Your task to perform on an android device: Clear the shopping cart on costco. Add "razer huntsman" to the cart on costco, then select checkout. Image 0: 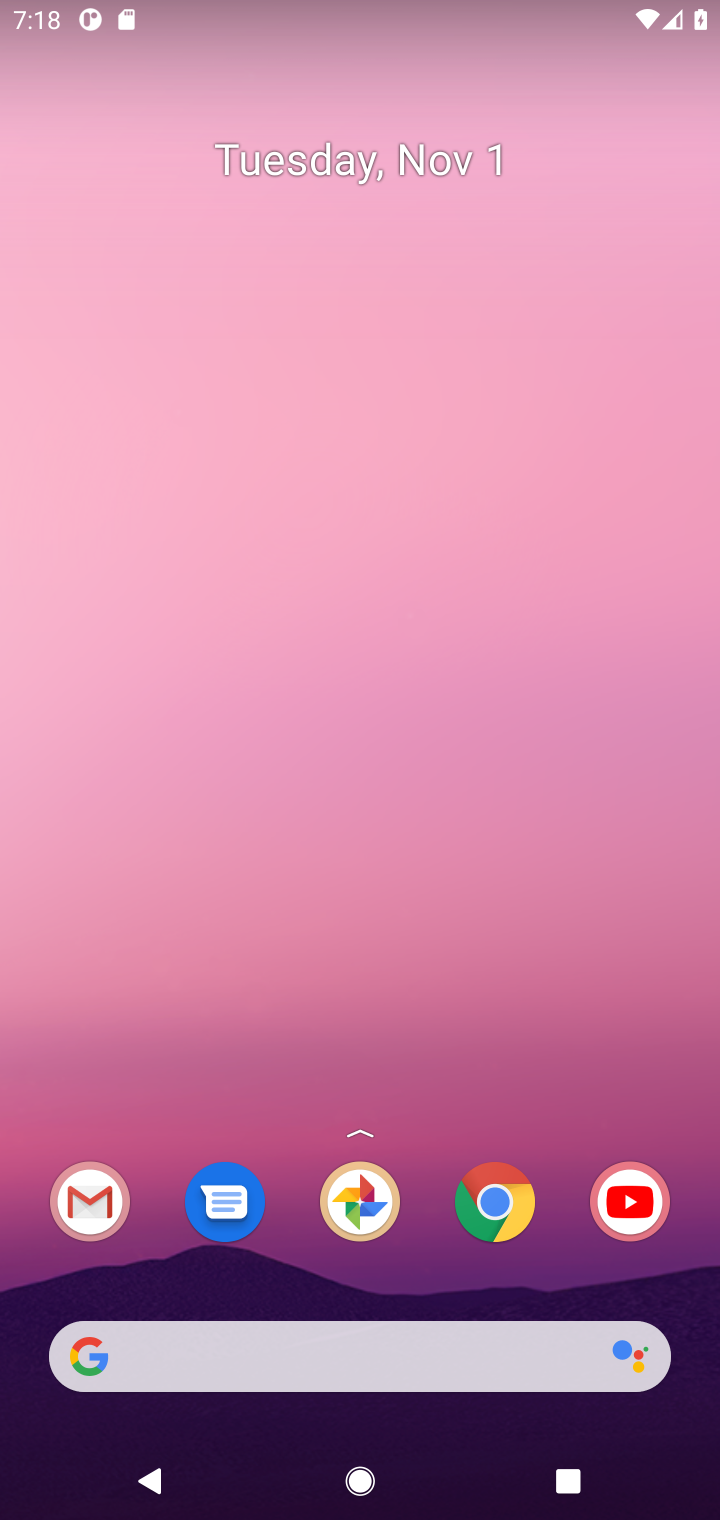
Step 0: drag from (422, 1352) to (256, 160)
Your task to perform on an android device: Clear the shopping cart on costco. Add "razer huntsman" to the cart on costco, then select checkout. Image 1: 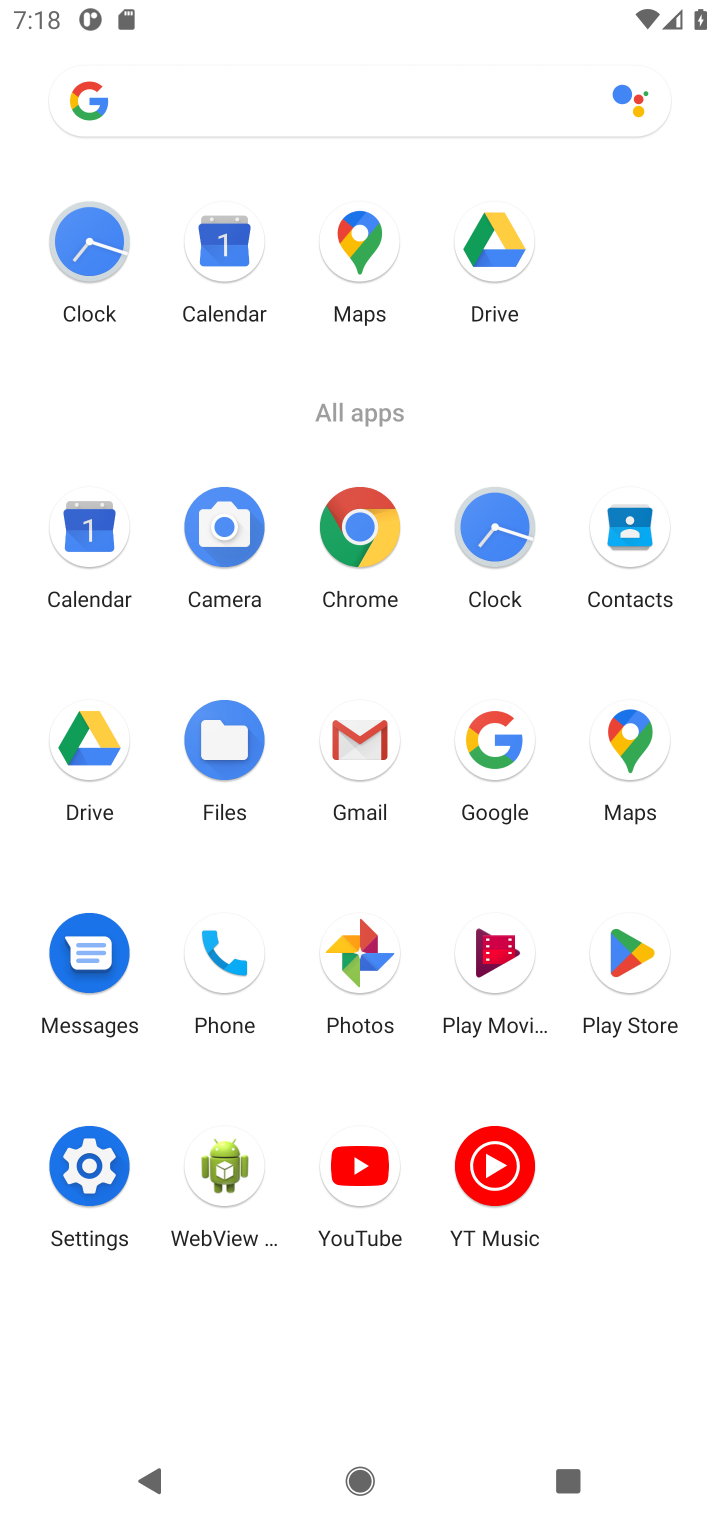
Step 1: click (367, 528)
Your task to perform on an android device: Clear the shopping cart on costco. Add "razer huntsman" to the cart on costco, then select checkout. Image 2: 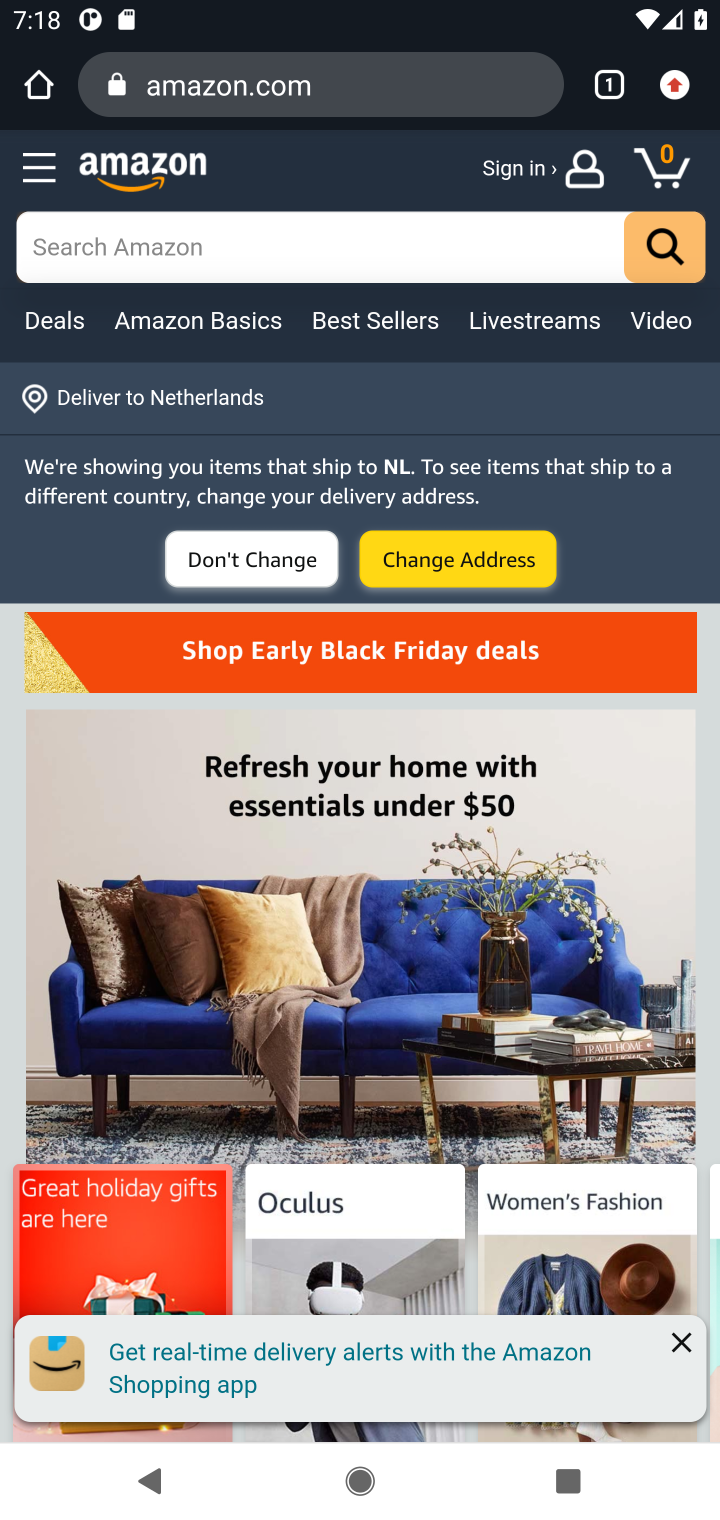
Step 2: click (309, 87)
Your task to perform on an android device: Clear the shopping cart on costco. Add "razer huntsman" to the cart on costco, then select checkout. Image 3: 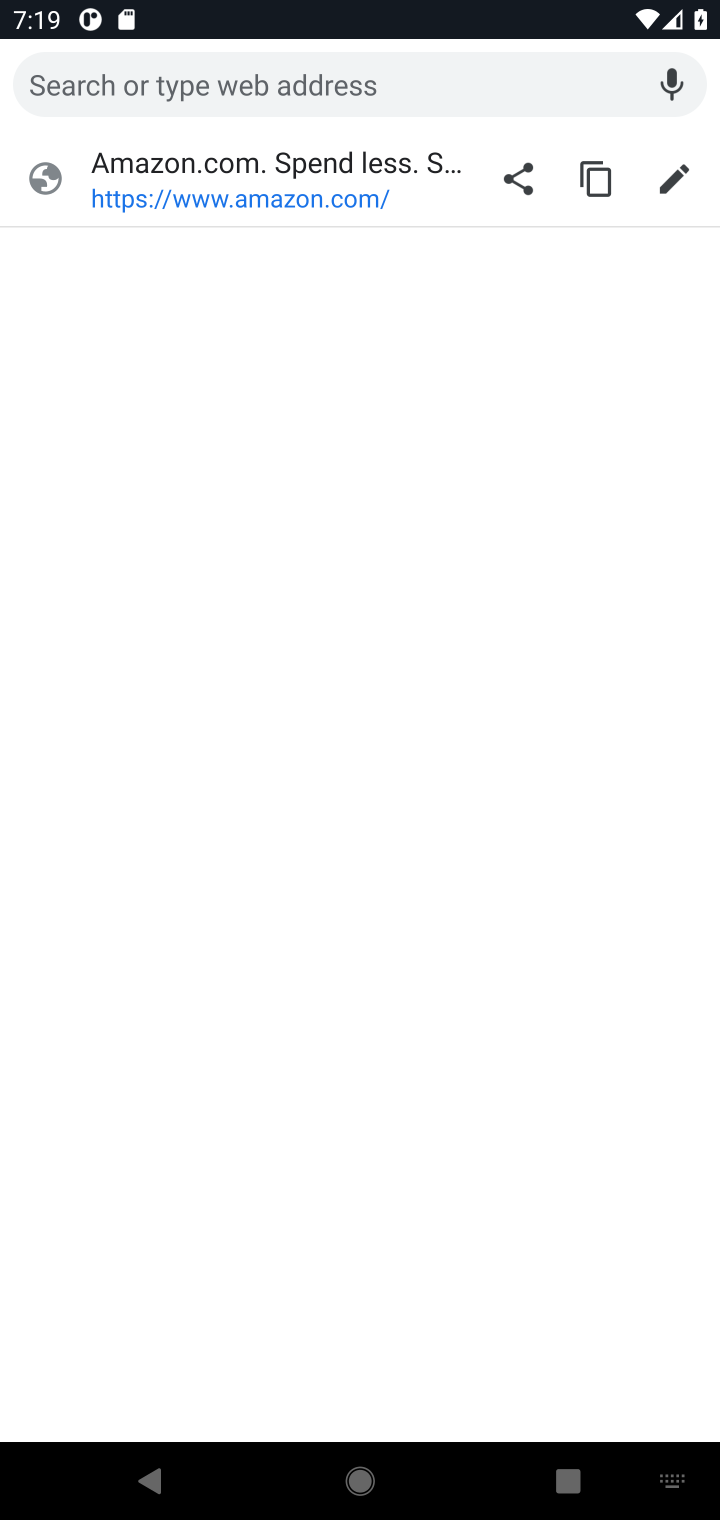
Step 3: type "costco"
Your task to perform on an android device: Clear the shopping cart on costco. Add "razer huntsman" to the cart on costco, then select checkout. Image 4: 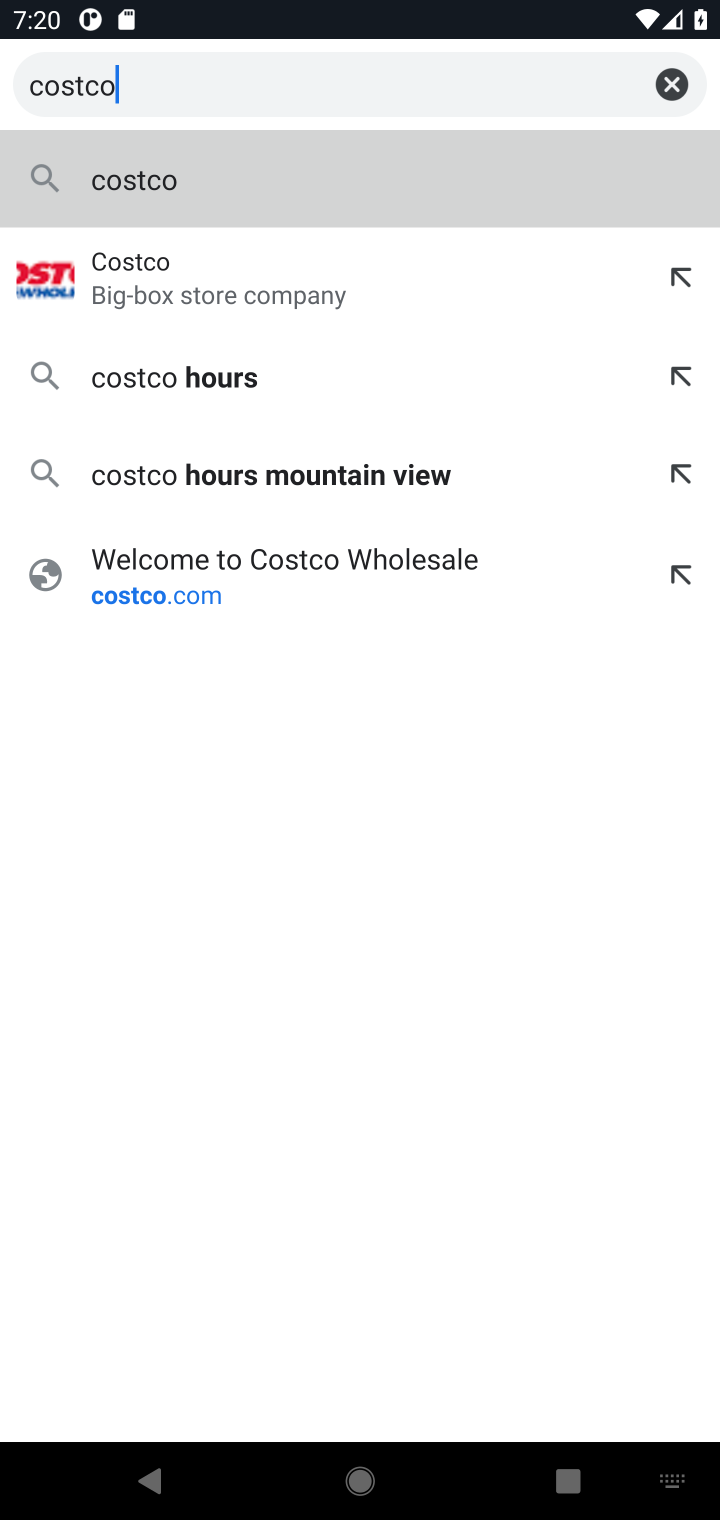
Step 4: click (147, 178)
Your task to perform on an android device: Clear the shopping cart on costco. Add "razer huntsman" to the cart on costco, then select checkout. Image 5: 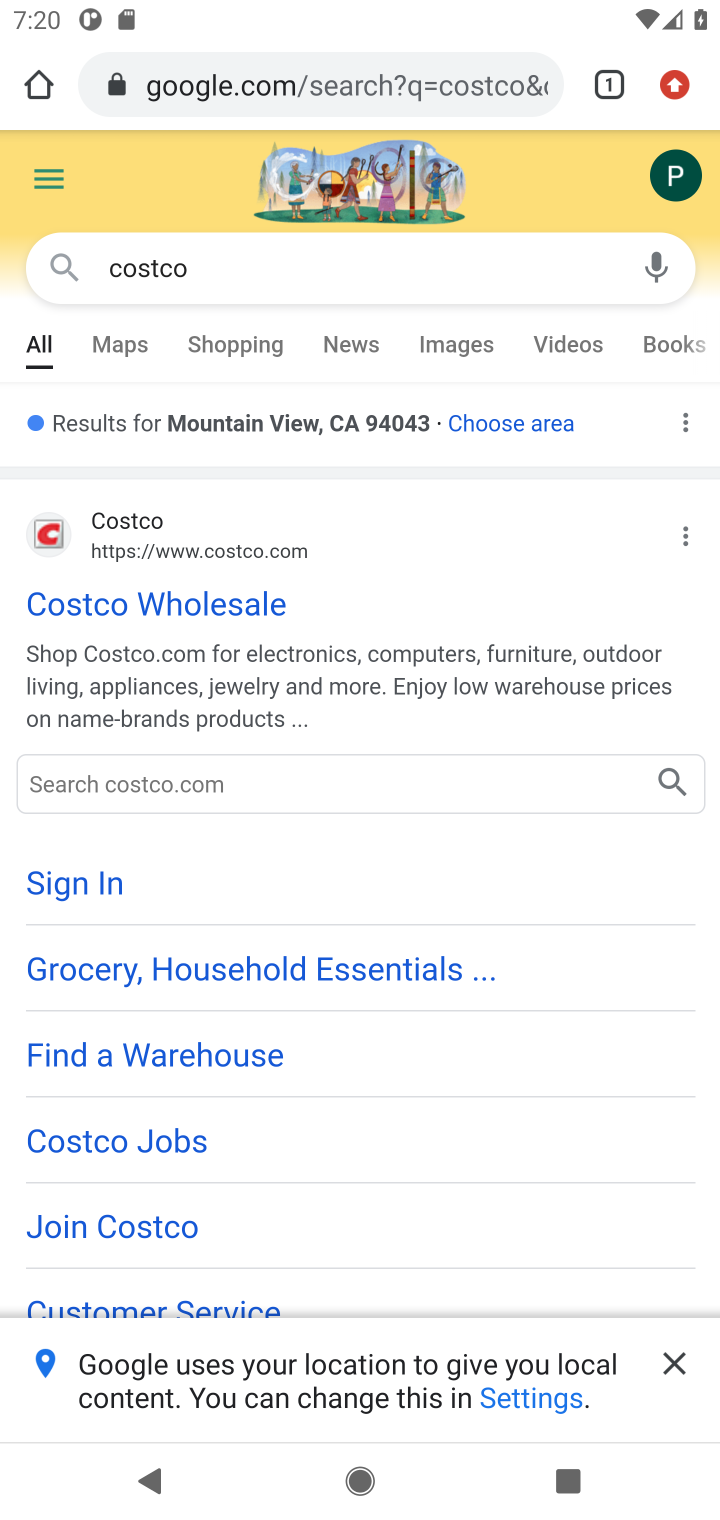
Step 5: click (148, 598)
Your task to perform on an android device: Clear the shopping cart on costco. Add "razer huntsman" to the cart on costco, then select checkout. Image 6: 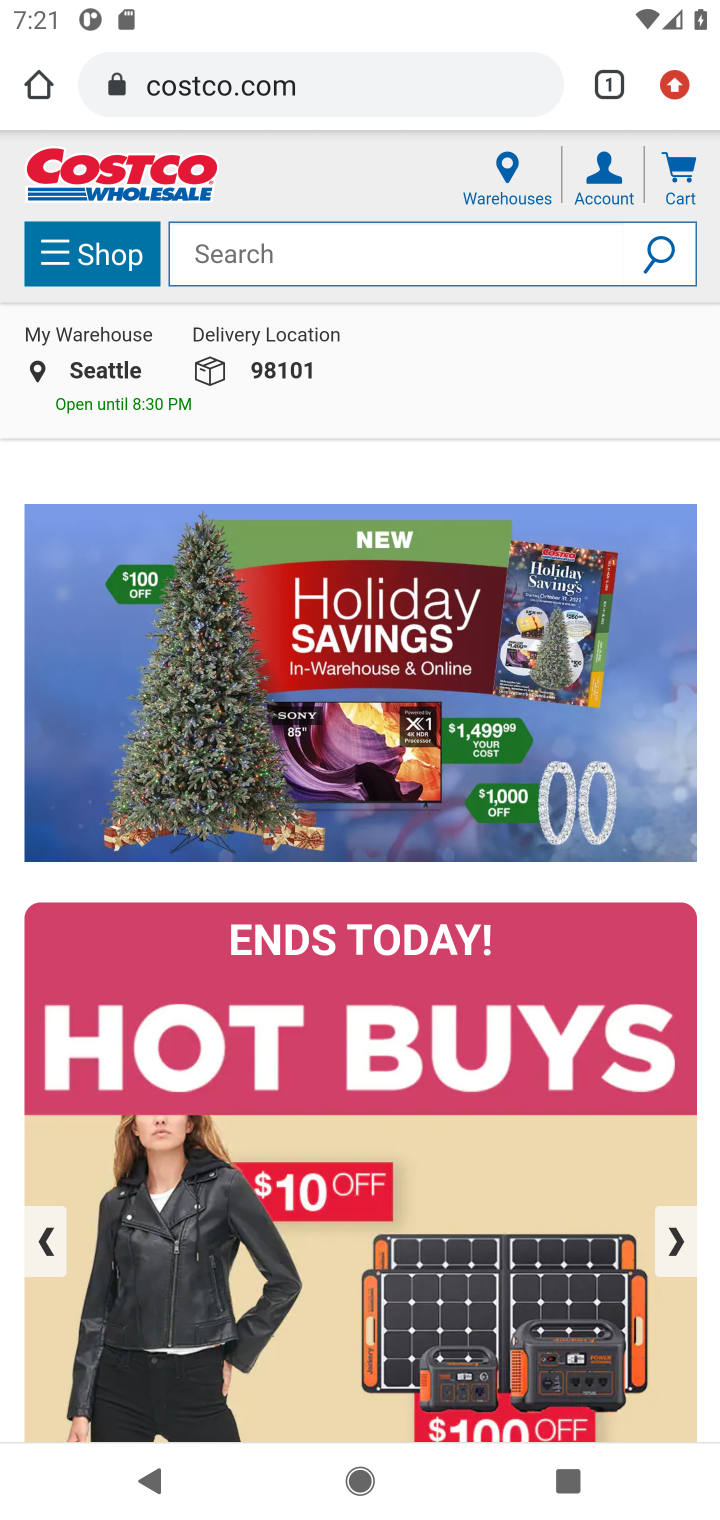
Step 6: click (686, 166)
Your task to perform on an android device: Clear the shopping cart on costco. Add "razer huntsman" to the cart on costco, then select checkout. Image 7: 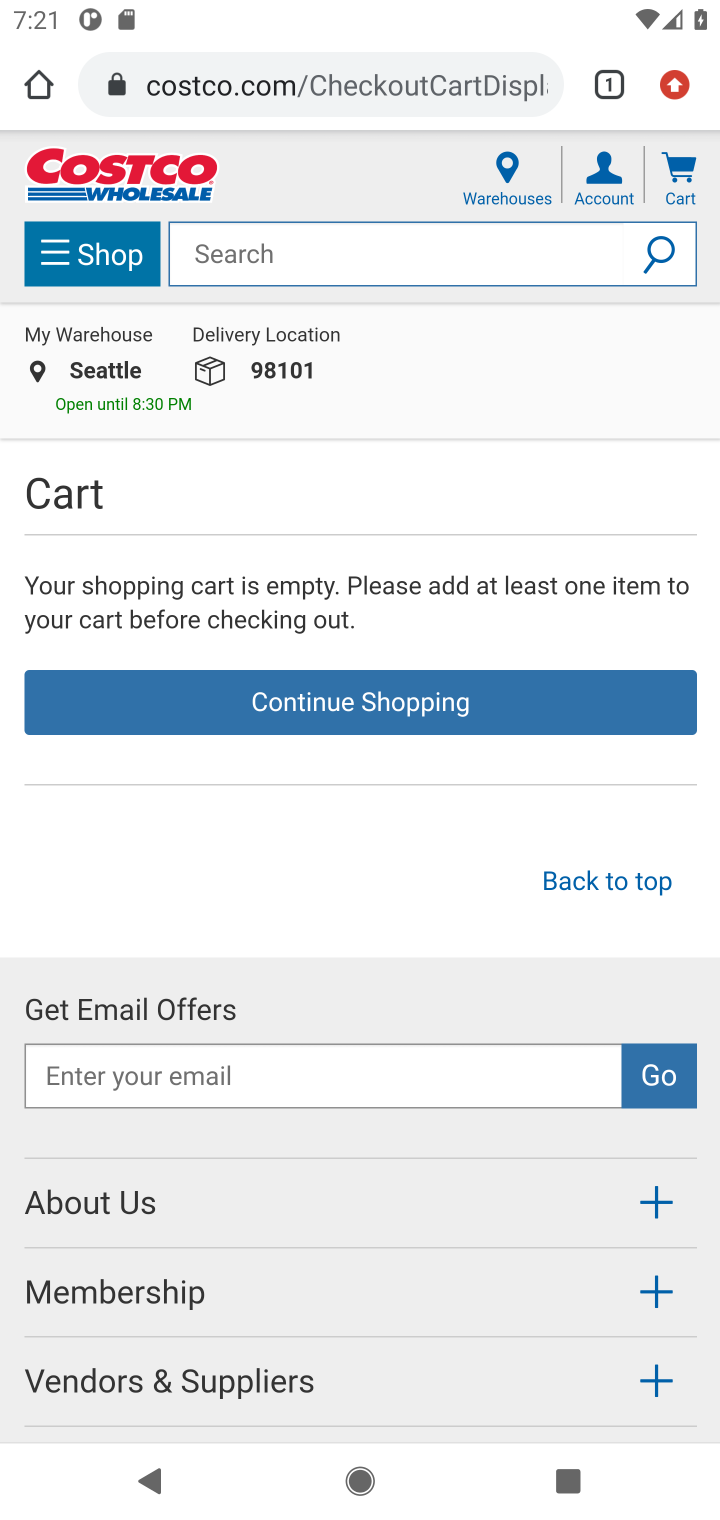
Step 7: press back button
Your task to perform on an android device: Clear the shopping cart on costco. Add "razer huntsman" to the cart on costco, then select checkout. Image 8: 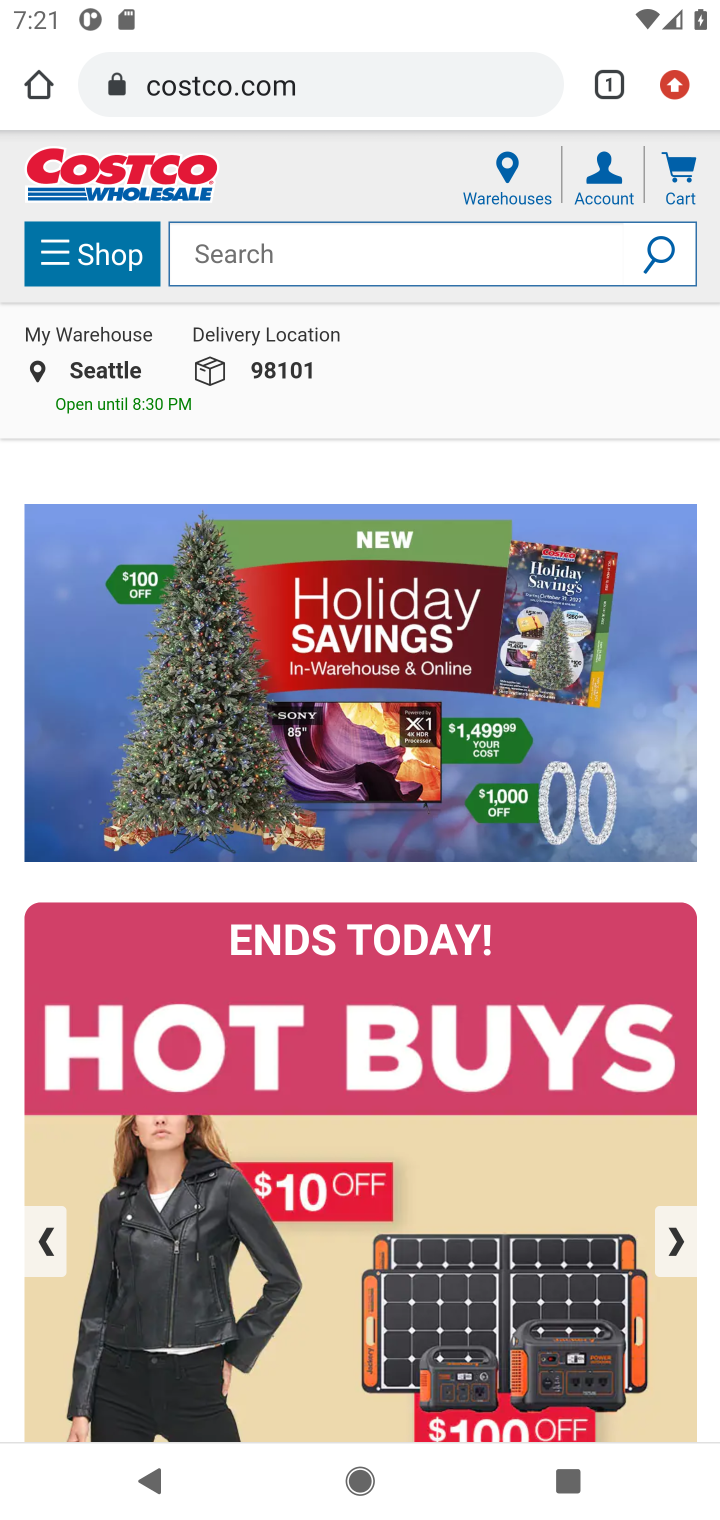
Step 8: drag from (433, 719) to (415, 341)
Your task to perform on an android device: Clear the shopping cart on costco. Add "razer huntsman" to the cart on costco, then select checkout. Image 9: 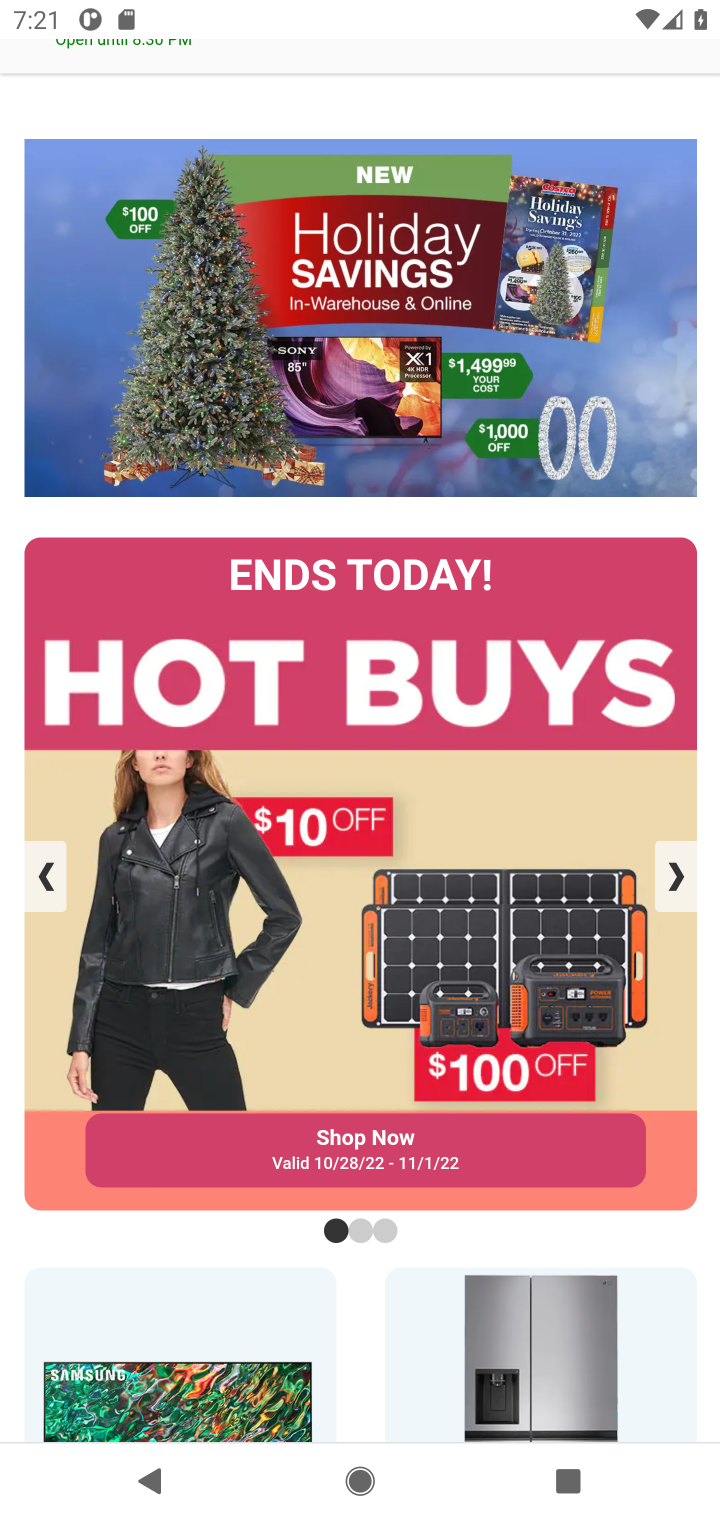
Step 9: drag from (356, 1379) to (155, 1490)
Your task to perform on an android device: Clear the shopping cart on costco. Add "razer huntsman" to the cart on costco, then select checkout. Image 10: 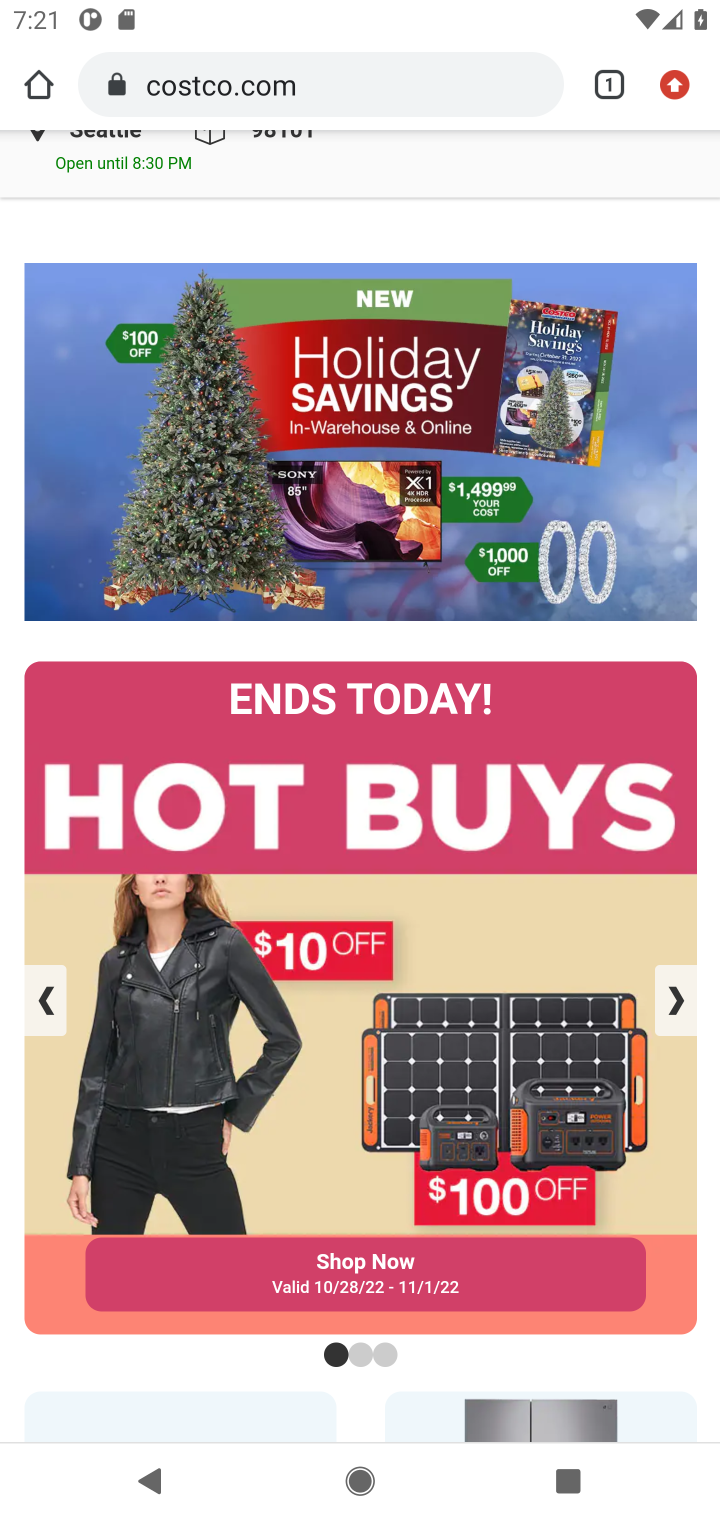
Step 10: click (319, 58)
Your task to perform on an android device: Clear the shopping cart on costco. Add "razer huntsman" to the cart on costco, then select checkout. Image 11: 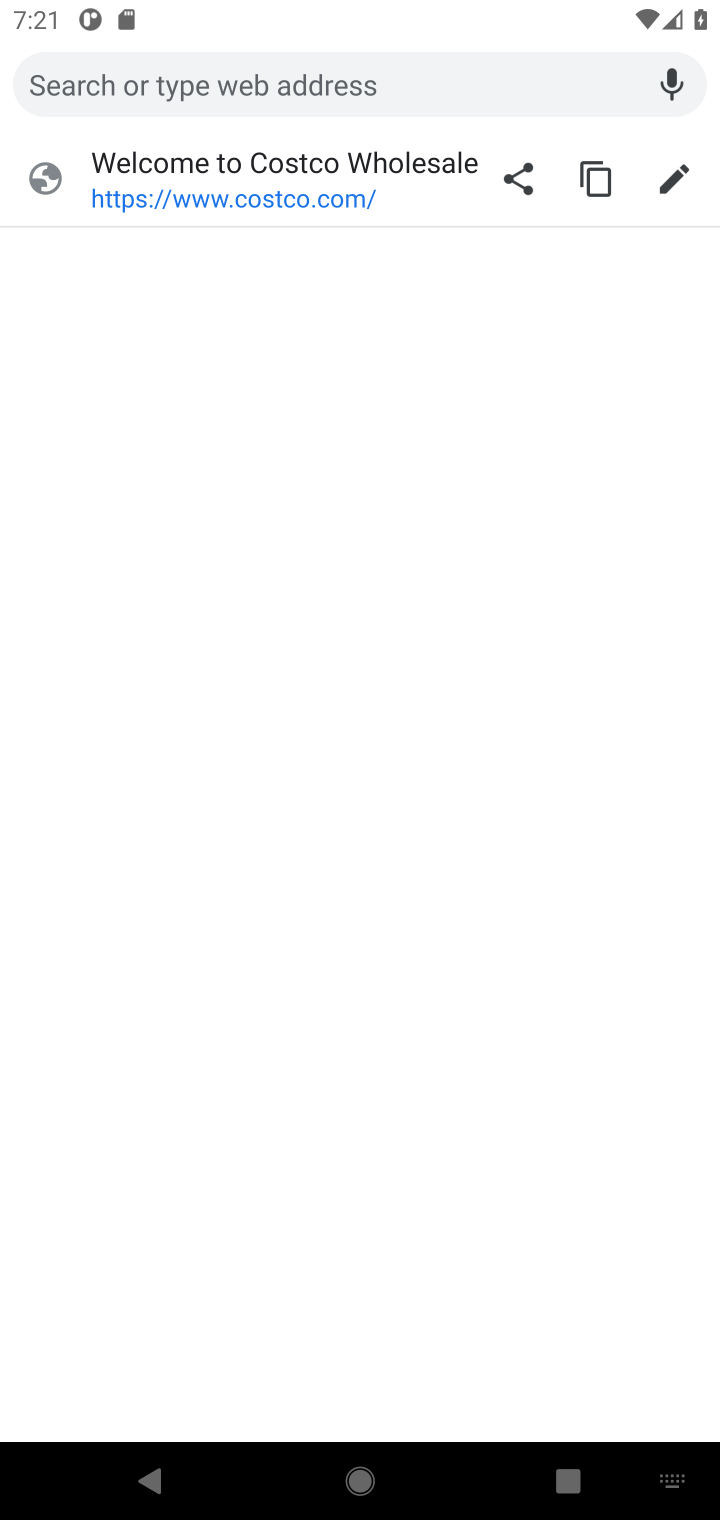
Step 11: press back button
Your task to perform on an android device: Clear the shopping cart on costco. Add "razer huntsman" to the cart on costco, then select checkout. Image 12: 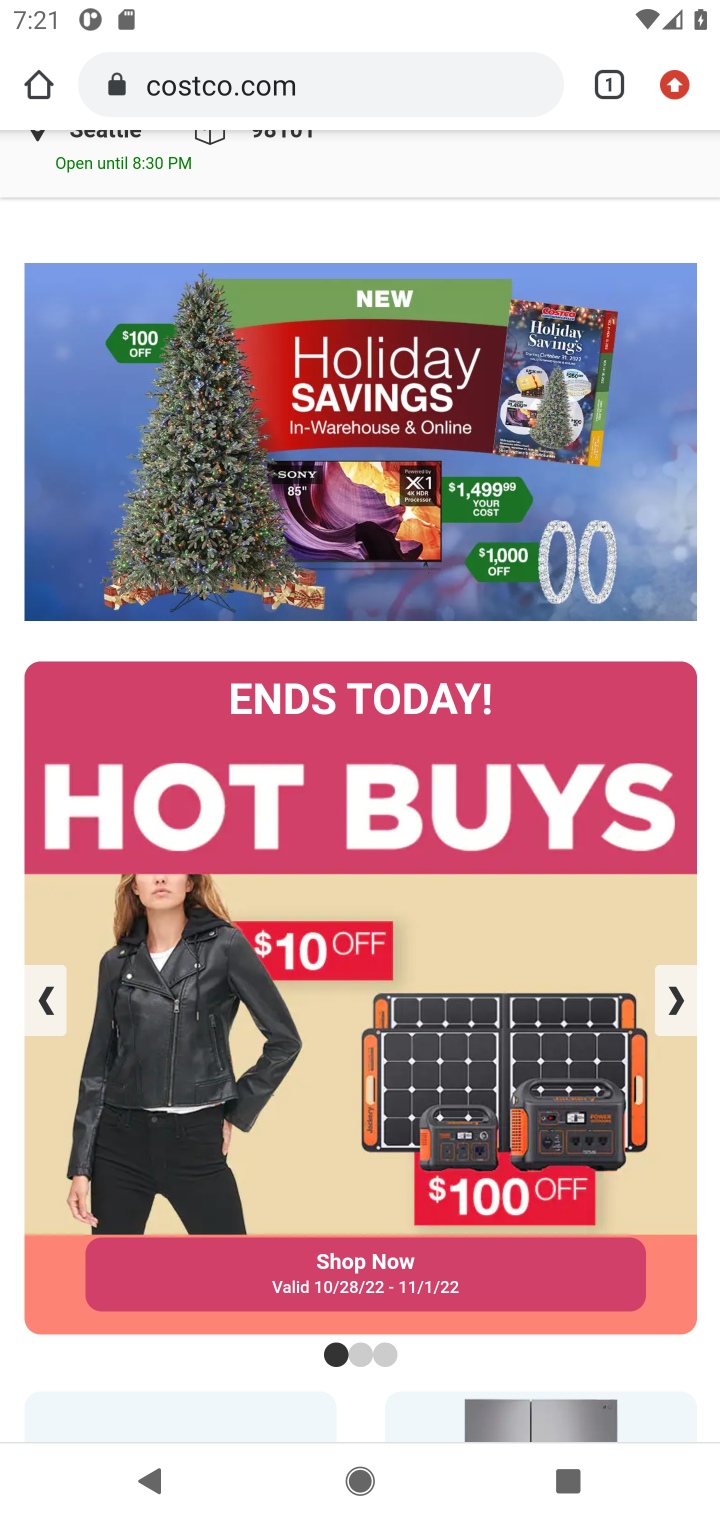
Step 12: drag from (428, 346) to (482, 1180)
Your task to perform on an android device: Clear the shopping cart on costco. Add "razer huntsman" to the cart on costco, then select checkout. Image 13: 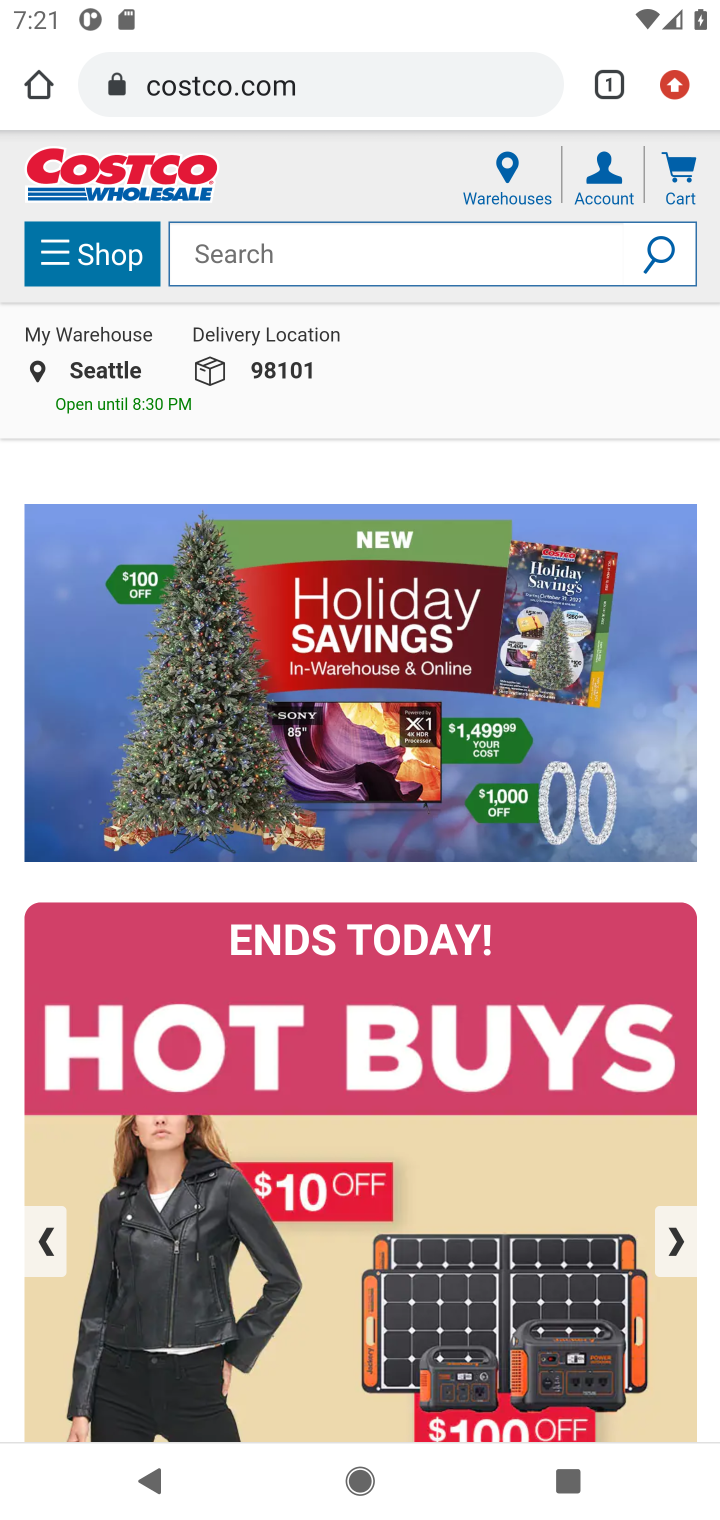
Step 13: click (211, 260)
Your task to perform on an android device: Clear the shopping cart on costco. Add "razer huntsman" to the cart on costco, then select checkout. Image 14: 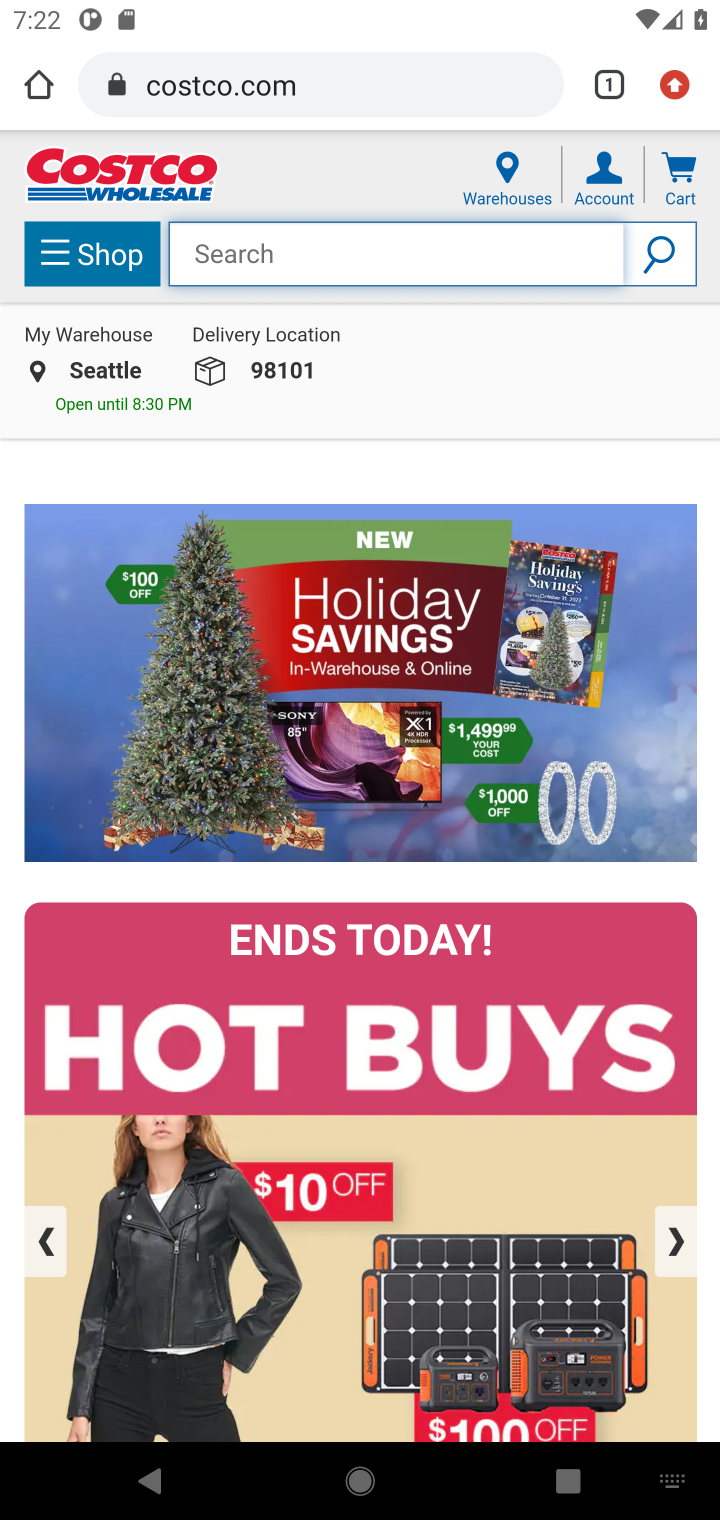
Step 14: type "razer huntsman"
Your task to perform on an android device: Clear the shopping cart on costco. Add "razer huntsman" to the cart on costco, then select checkout. Image 15: 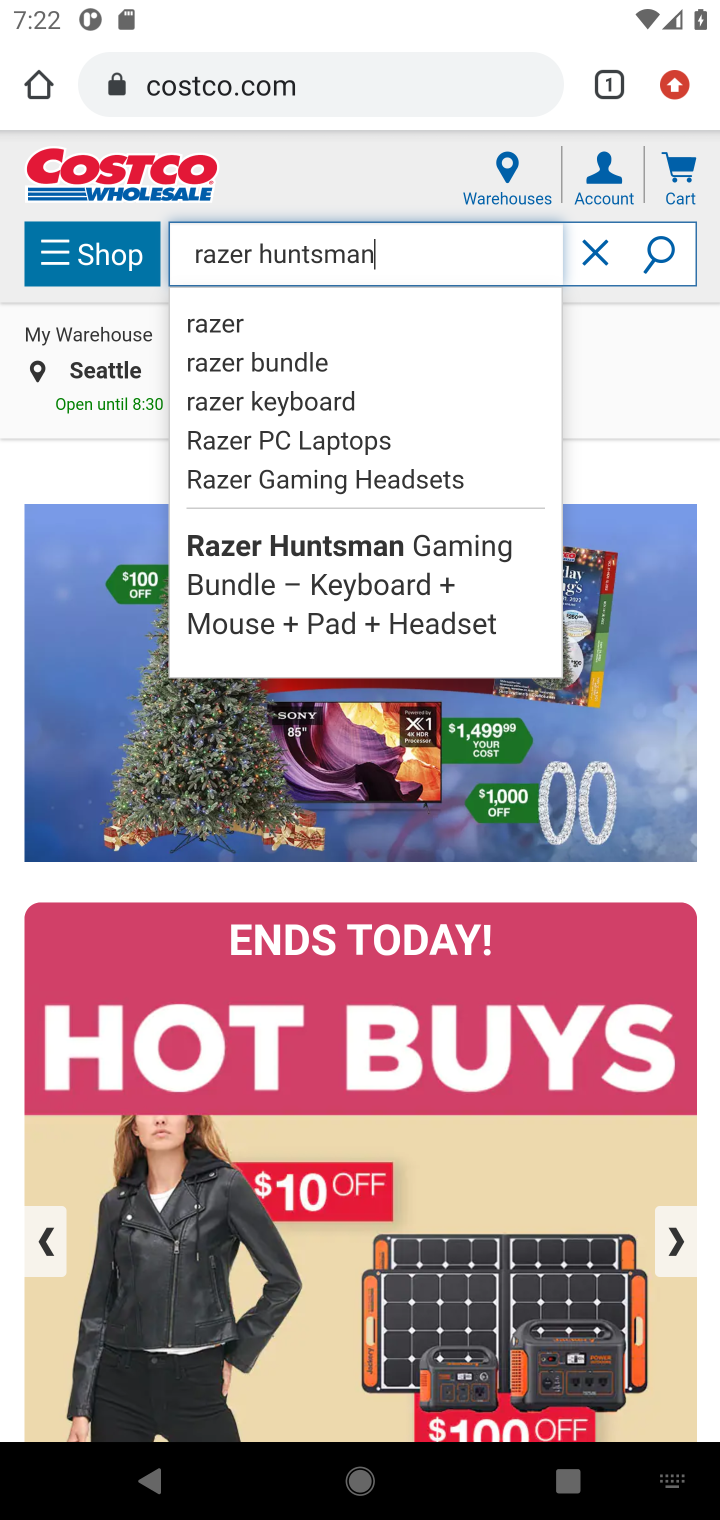
Step 15: click (665, 250)
Your task to perform on an android device: Clear the shopping cart on costco. Add "razer huntsman" to the cart on costco, then select checkout. Image 16: 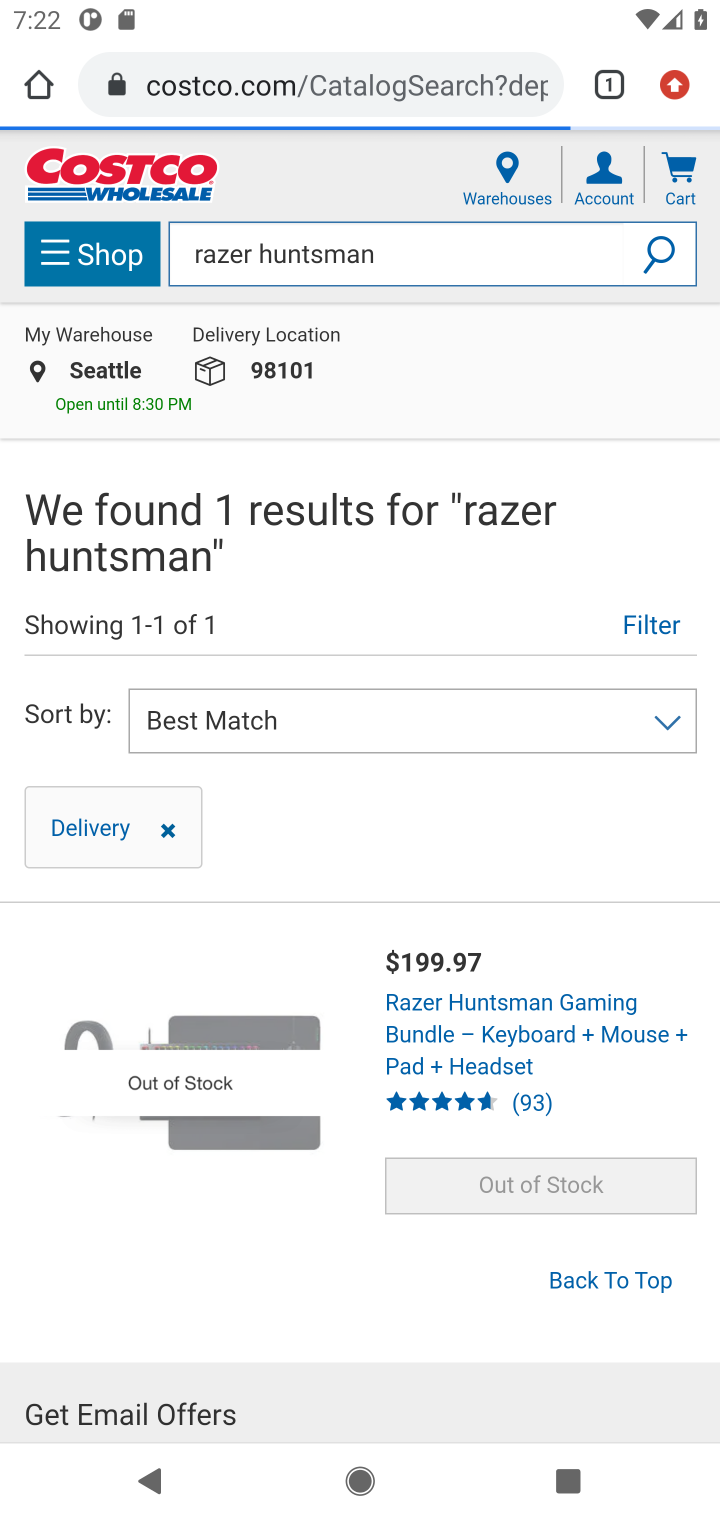
Step 16: task complete